Your task to perform on an android device: Open calendar and show me the fourth week of next month Image 0: 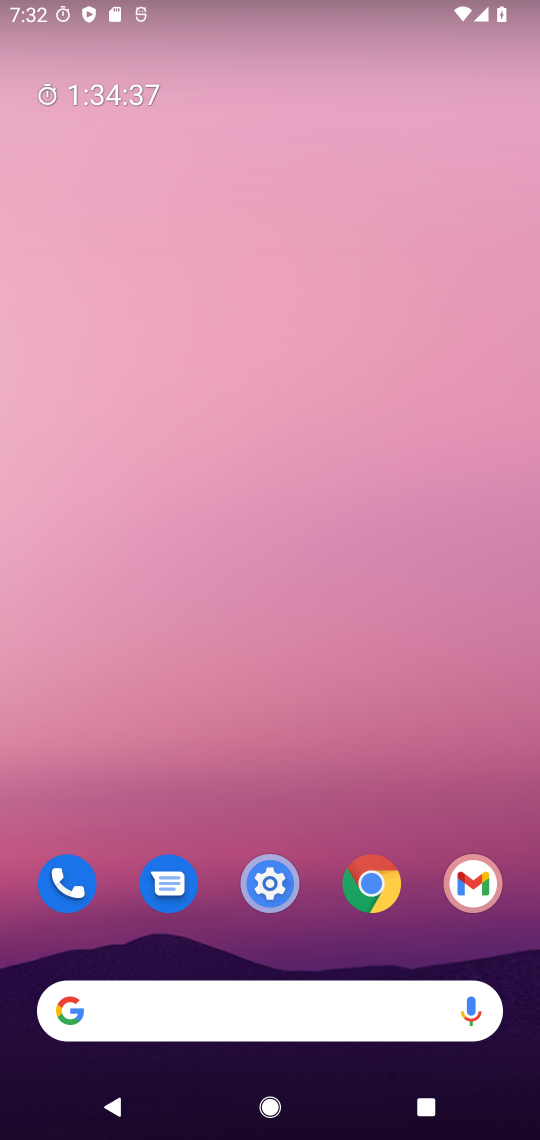
Step 0: drag from (304, 823) to (306, 240)
Your task to perform on an android device: Open calendar and show me the fourth week of next month Image 1: 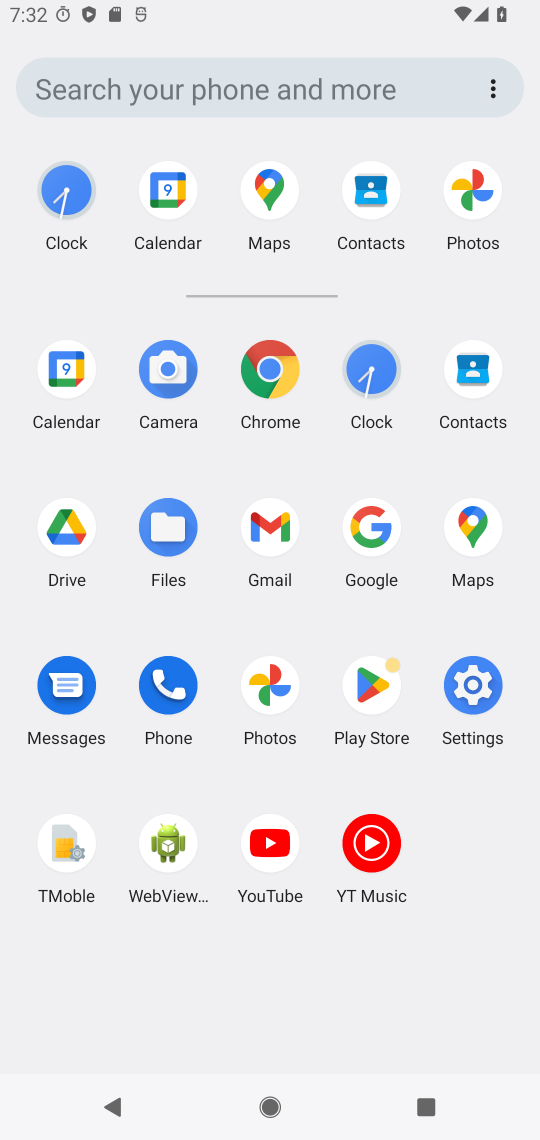
Step 1: click (95, 377)
Your task to perform on an android device: Open calendar and show me the fourth week of next month Image 2: 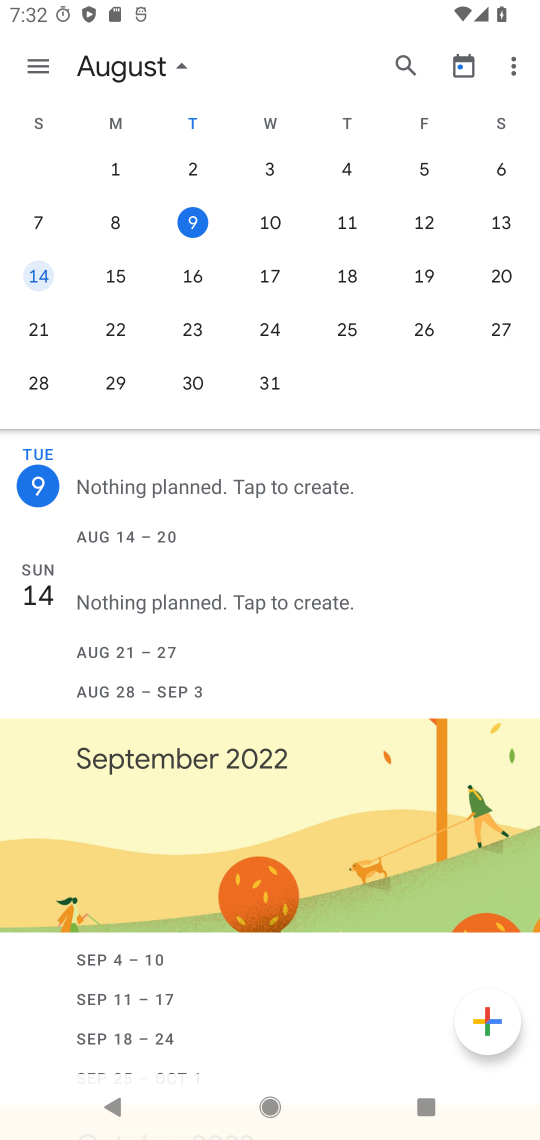
Step 2: drag from (394, 252) to (69, 226)
Your task to perform on an android device: Open calendar and show me the fourth week of next month Image 3: 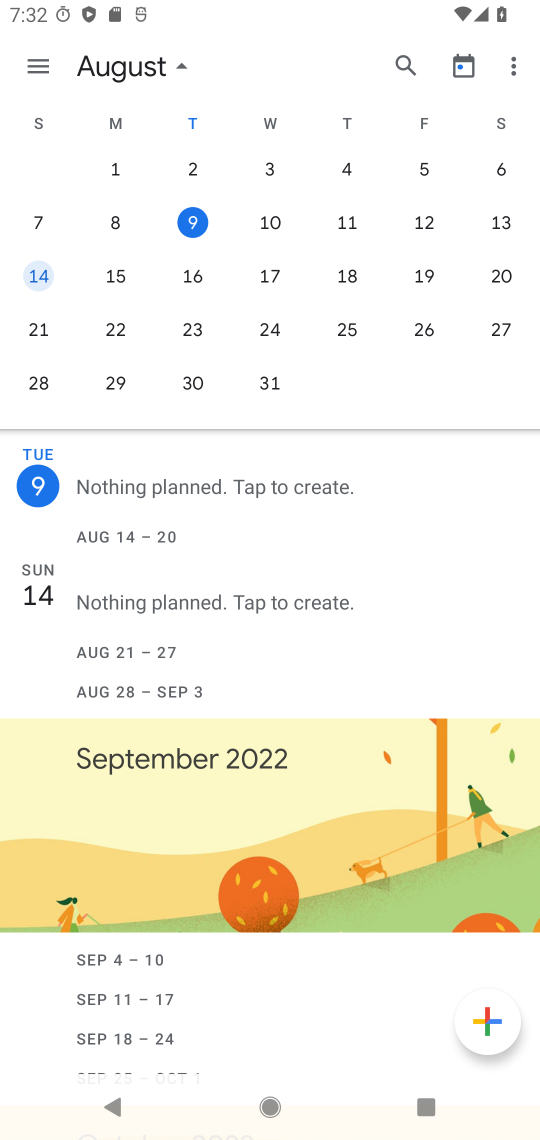
Step 3: drag from (409, 219) to (11, 188)
Your task to perform on an android device: Open calendar and show me the fourth week of next month Image 4: 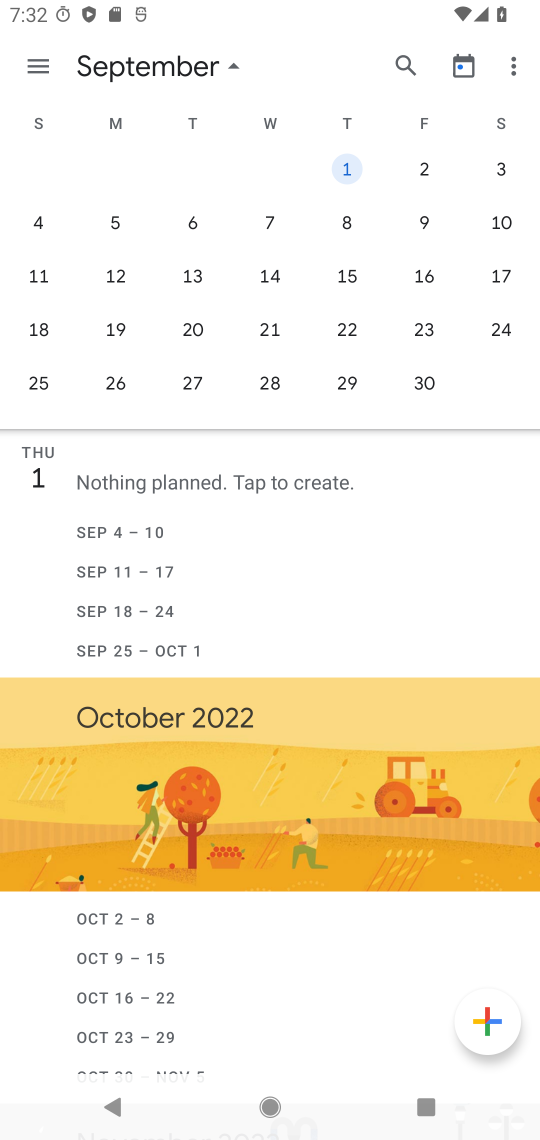
Step 4: click (42, 328)
Your task to perform on an android device: Open calendar and show me the fourth week of next month Image 5: 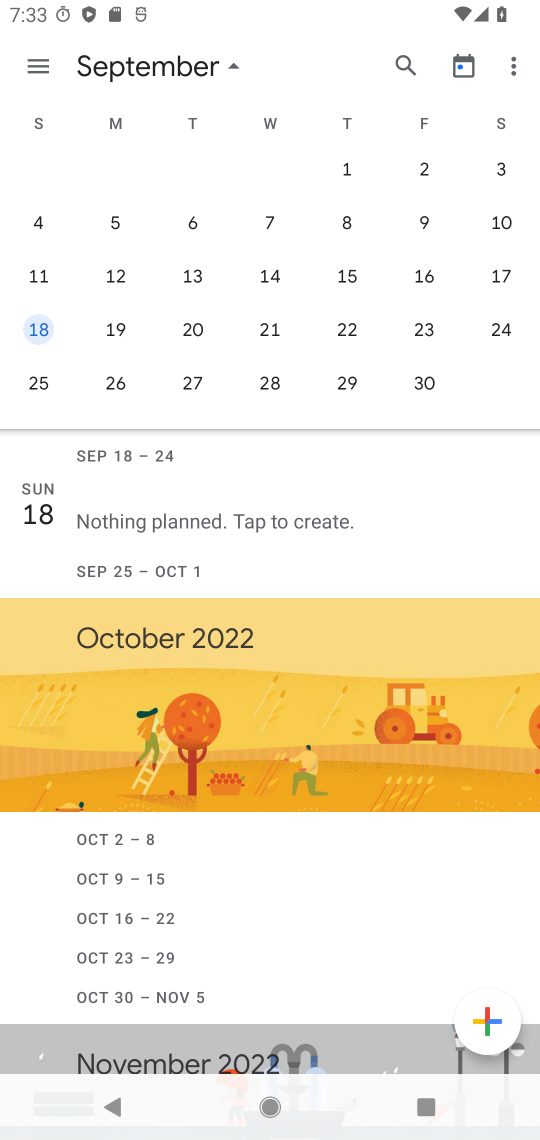
Step 5: task complete